Your task to perform on an android device: Open Google Maps Image 0: 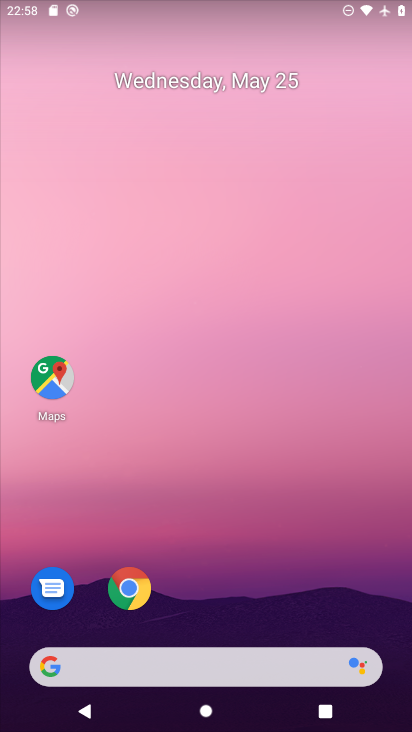
Step 0: click (62, 383)
Your task to perform on an android device: Open Google Maps Image 1: 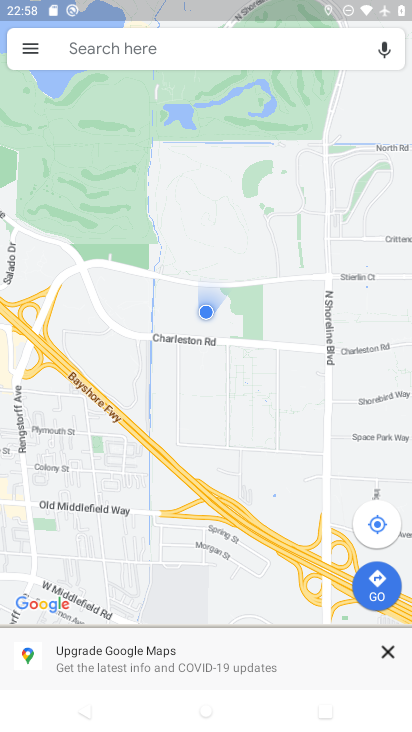
Step 1: task complete